Your task to perform on an android device: turn on location history Image 0: 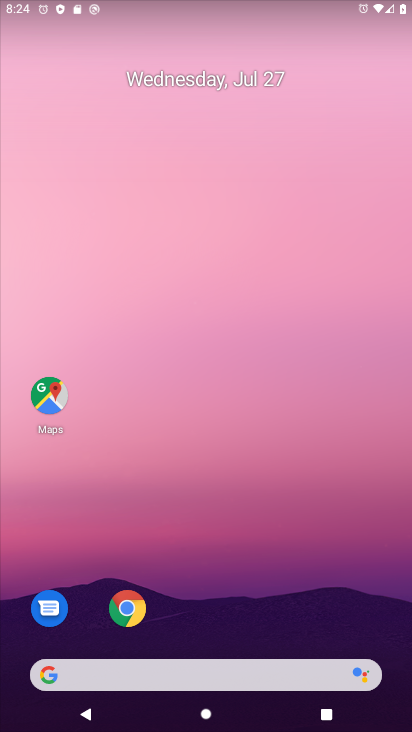
Step 0: click (135, 604)
Your task to perform on an android device: turn on location history Image 1: 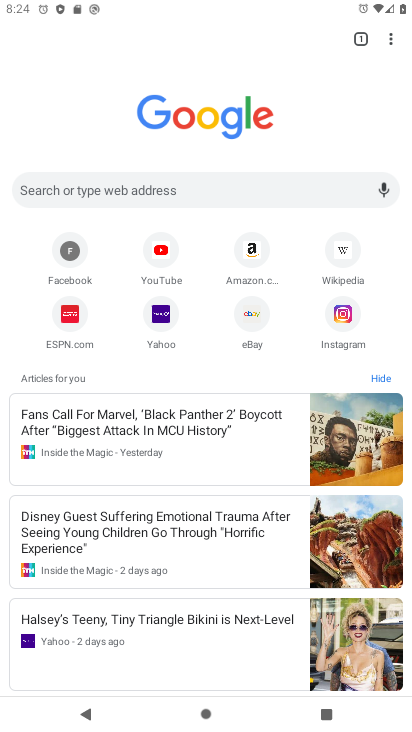
Step 1: click (406, 50)
Your task to perform on an android device: turn on location history Image 2: 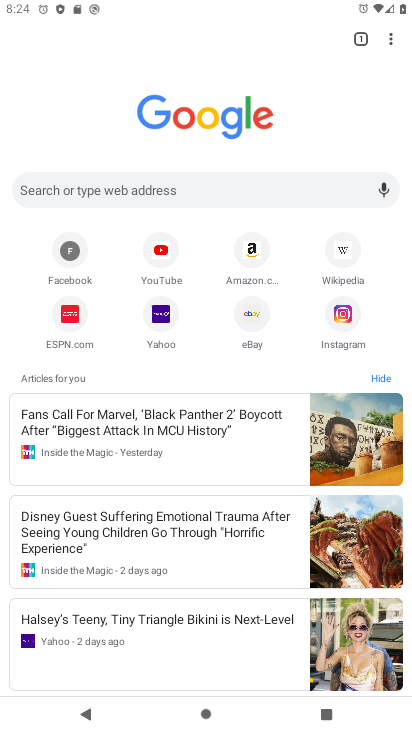
Step 2: click (396, 41)
Your task to perform on an android device: turn on location history Image 3: 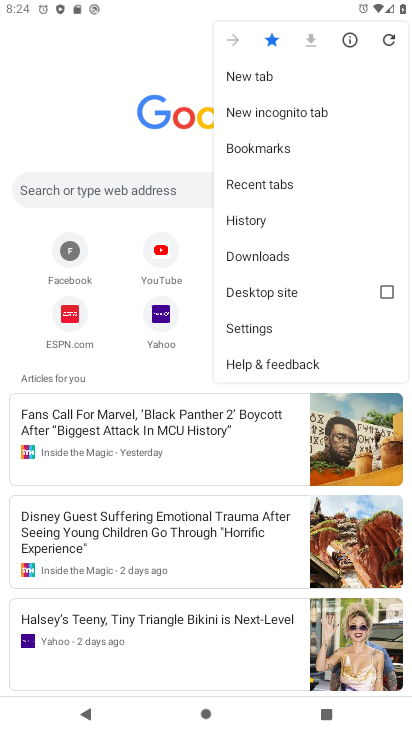
Step 3: click (240, 217)
Your task to perform on an android device: turn on location history Image 4: 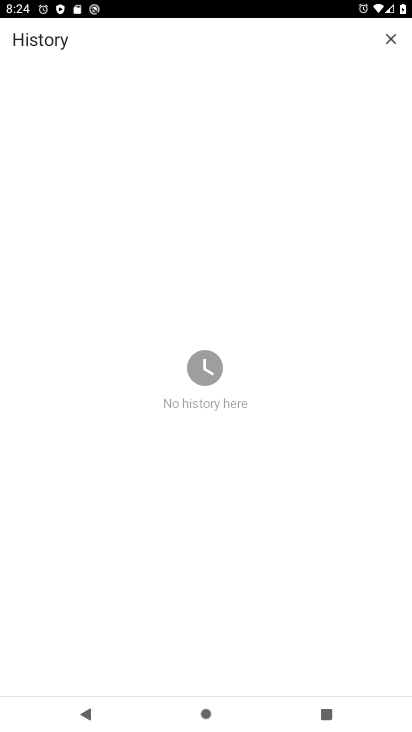
Step 4: task complete